Your task to perform on an android device: Show me the alarms in the clock app Image 0: 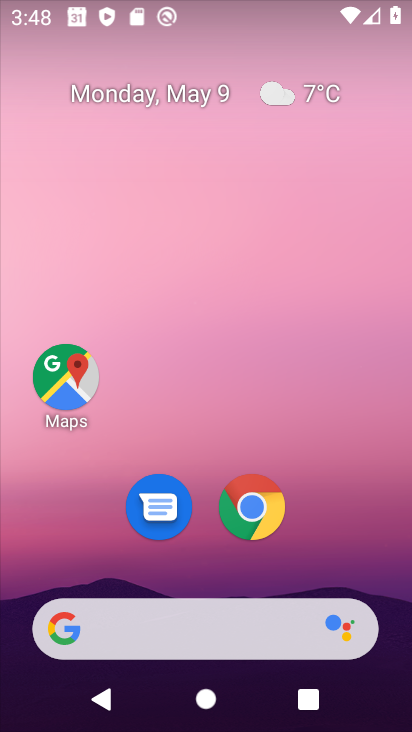
Step 0: drag from (307, 679) to (219, 184)
Your task to perform on an android device: Show me the alarms in the clock app Image 1: 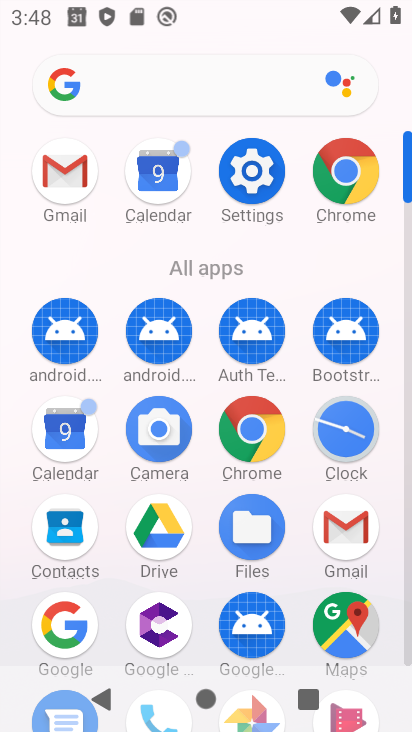
Step 1: click (338, 435)
Your task to perform on an android device: Show me the alarms in the clock app Image 2: 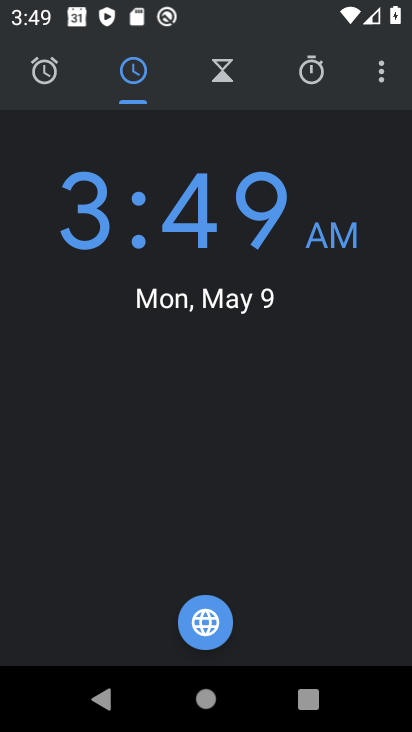
Step 2: click (47, 82)
Your task to perform on an android device: Show me the alarms in the clock app Image 3: 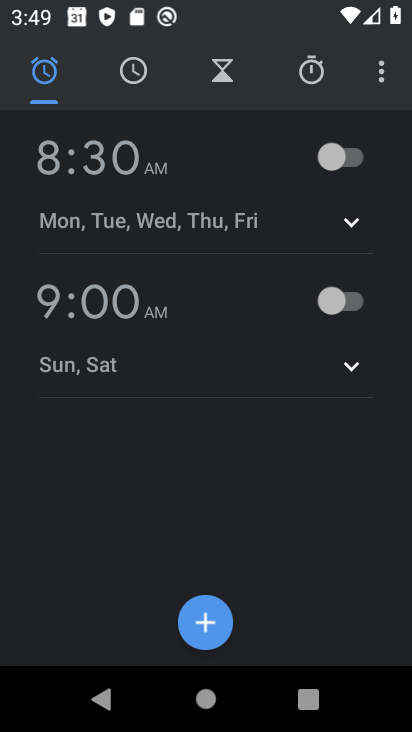
Step 3: task complete